Your task to perform on an android device: open app "Google Docs" Image 0: 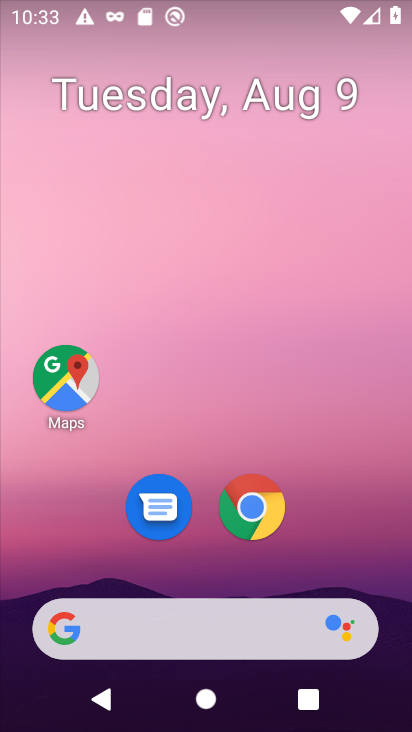
Step 0: drag from (182, 633) to (151, 146)
Your task to perform on an android device: open app "Google Docs" Image 1: 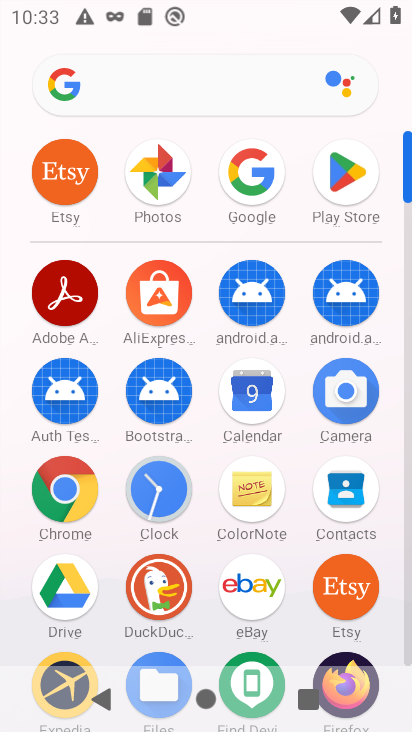
Step 1: click (347, 178)
Your task to perform on an android device: open app "Google Docs" Image 2: 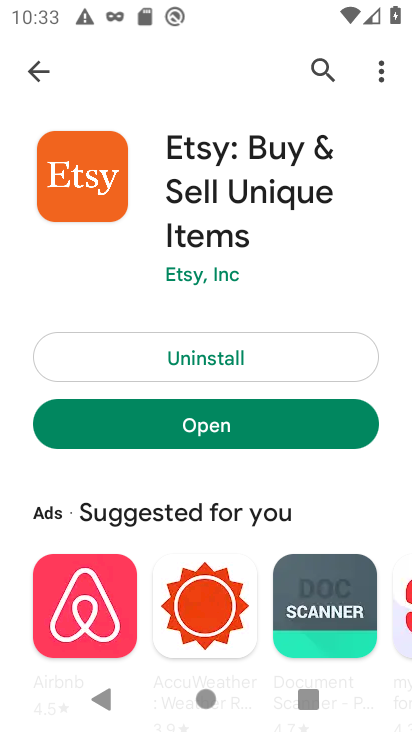
Step 2: click (326, 69)
Your task to perform on an android device: open app "Google Docs" Image 3: 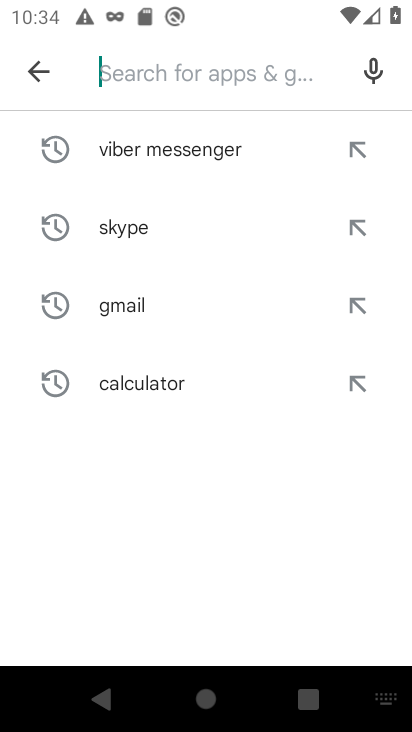
Step 3: type "Google Docs"
Your task to perform on an android device: open app "Google Docs" Image 4: 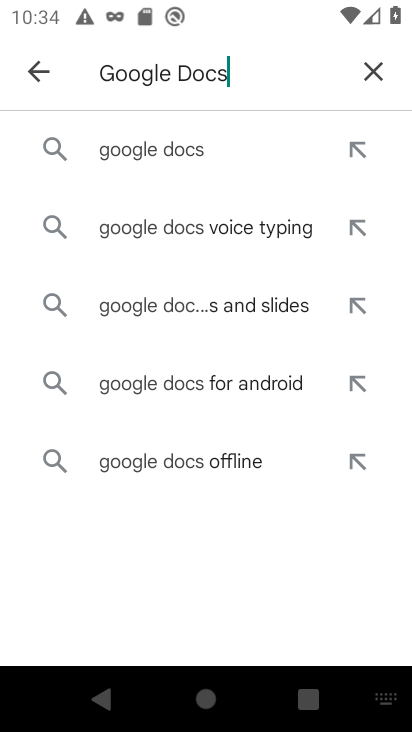
Step 4: click (177, 146)
Your task to perform on an android device: open app "Google Docs" Image 5: 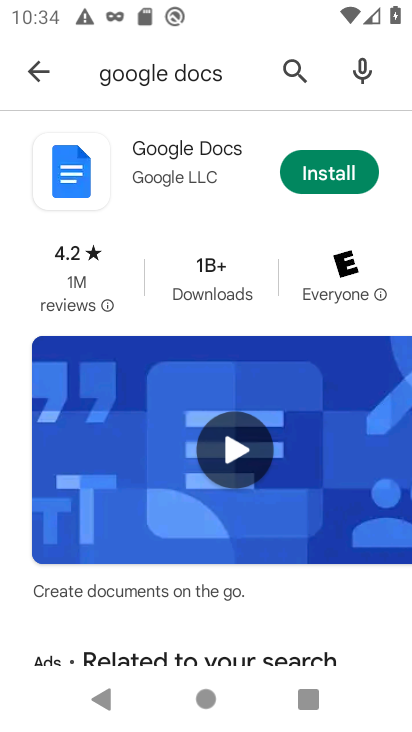
Step 5: task complete